Your task to perform on an android device: open a bookmark in the chrome app Image 0: 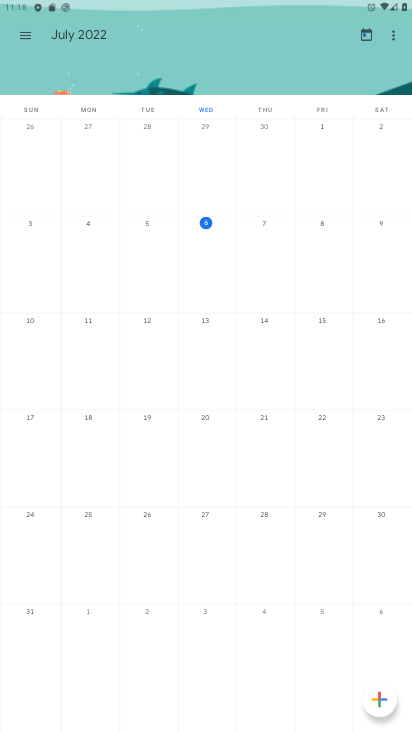
Step 0: press home button
Your task to perform on an android device: open a bookmark in the chrome app Image 1: 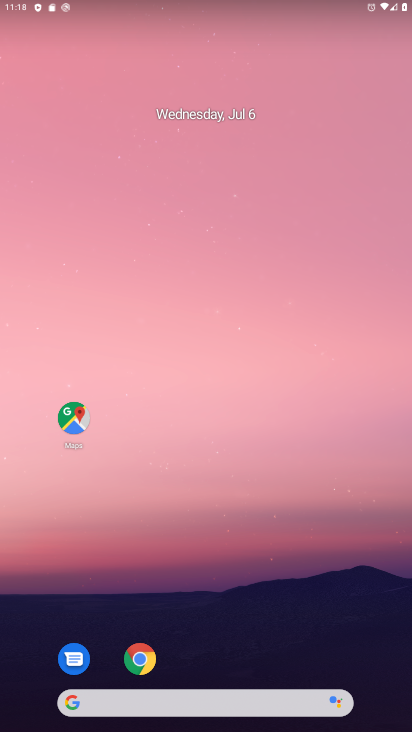
Step 1: click (140, 659)
Your task to perform on an android device: open a bookmark in the chrome app Image 2: 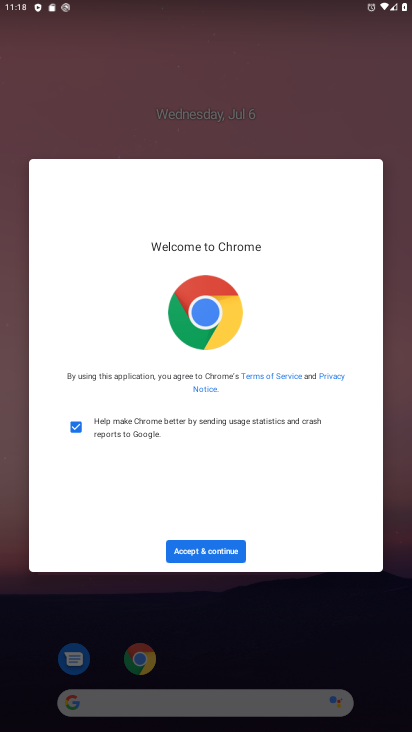
Step 2: click (222, 546)
Your task to perform on an android device: open a bookmark in the chrome app Image 3: 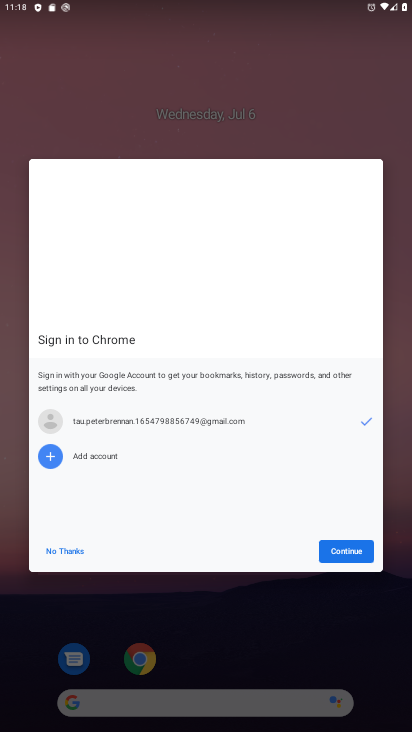
Step 3: click (320, 547)
Your task to perform on an android device: open a bookmark in the chrome app Image 4: 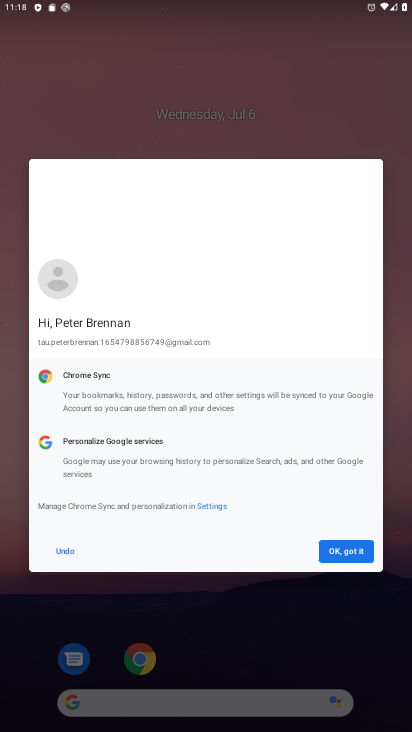
Step 4: click (346, 557)
Your task to perform on an android device: open a bookmark in the chrome app Image 5: 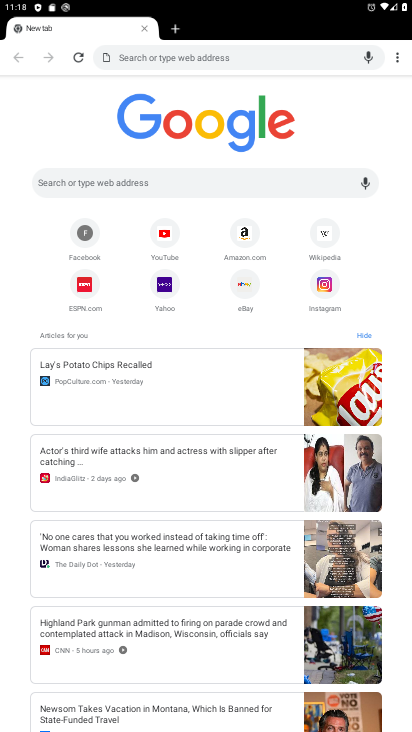
Step 5: click (399, 59)
Your task to perform on an android device: open a bookmark in the chrome app Image 6: 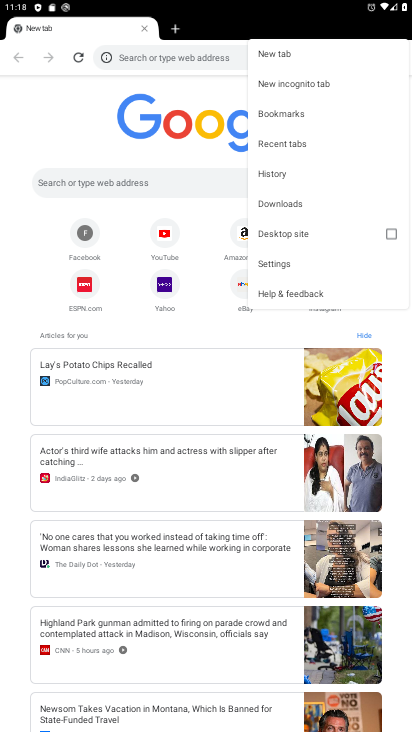
Step 6: click (321, 112)
Your task to perform on an android device: open a bookmark in the chrome app Image 7: 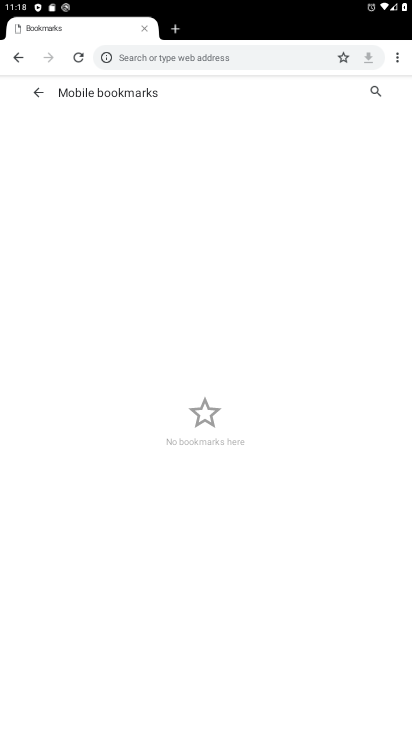
Step 7: task complete